Your task to perform on an android device: Go to calendar. Show me events next week Image 0: 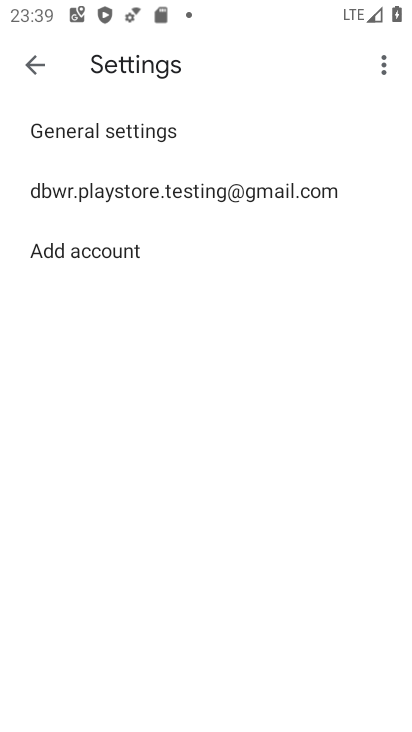
Step 0: press home button
Your task to perform on an android device: Go to calendar. Show me events next week Image 1: 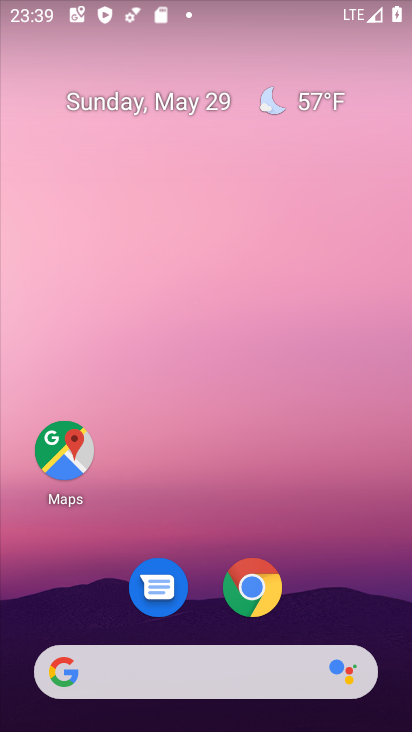
Step 1: drag from (377, 618) to (293, 186)
Your task to perform on an android device: Go to calendar. Show me events next week Image 2: 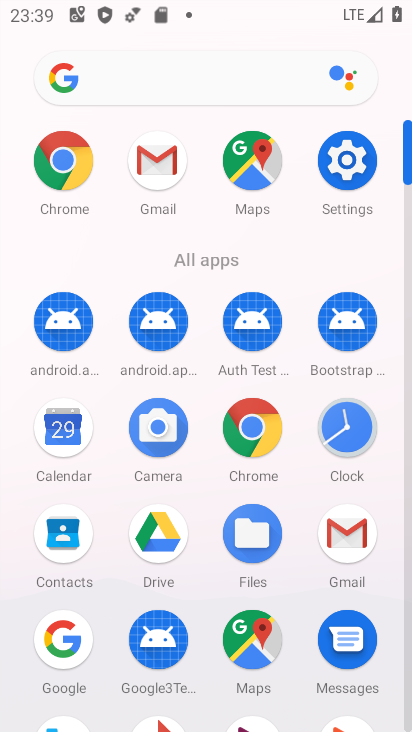
Step 2: click (68, 412)
Your task to perform on an android device: Go to calendar. Show me events next week Image 3: 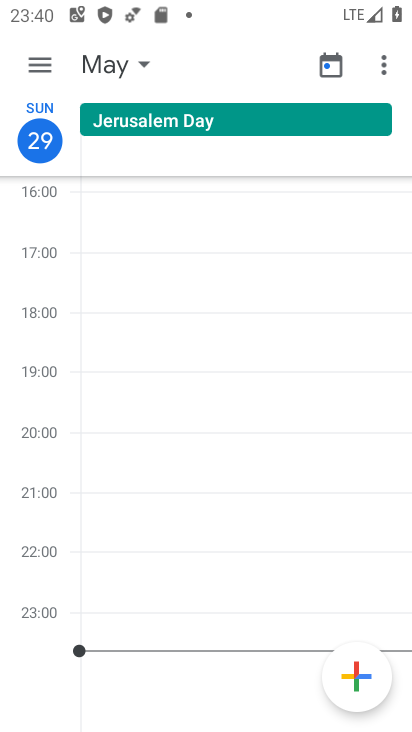
Step 3: click (38, 63)
Your task to perform on an android device: Go to calendar. Show me events next week Image 4: 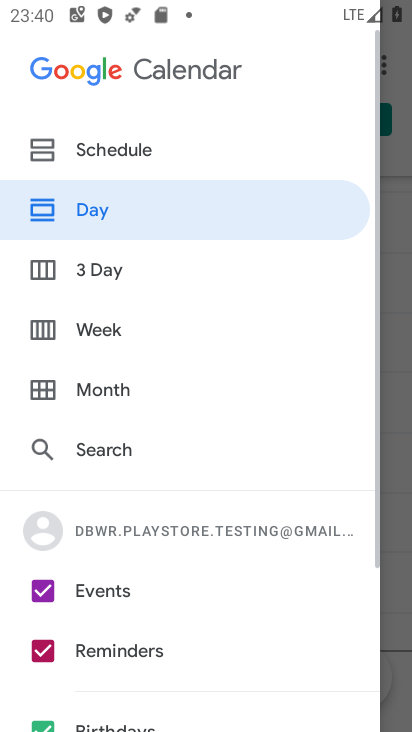
Step 4: drag from (112, 533) to (107, 232)
Your task to perform on an android device: Go to calendar. Show me events next week Image 5: 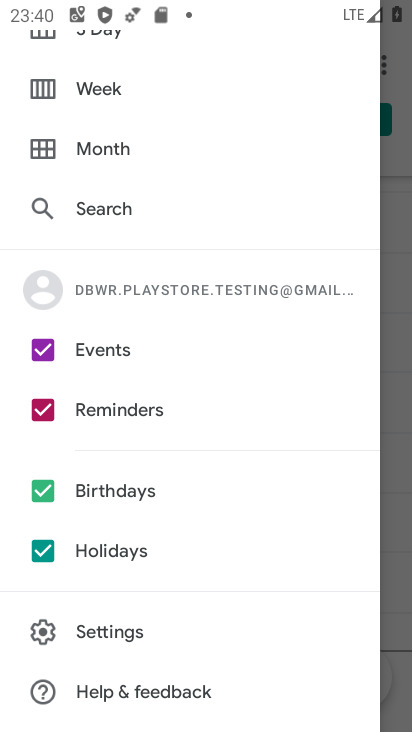
Step 5: click (51, 553)
Your task to perform on an android device: Go to calendar. Show me events next week Image 6: 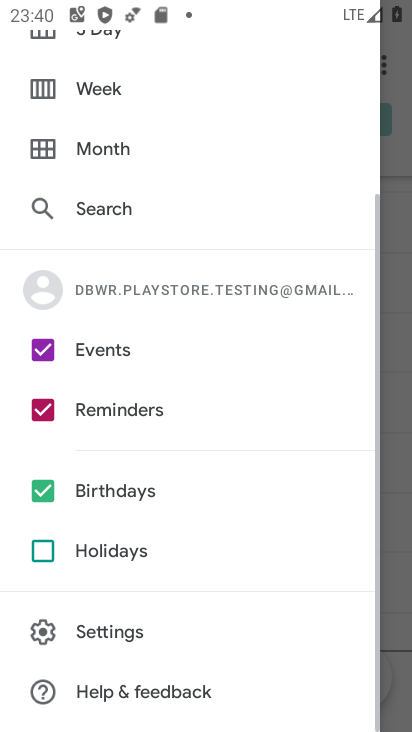
Step 6: click (45, 498)
Your task to perform on an android device: Go to calendar. Show me events next week Image 7: 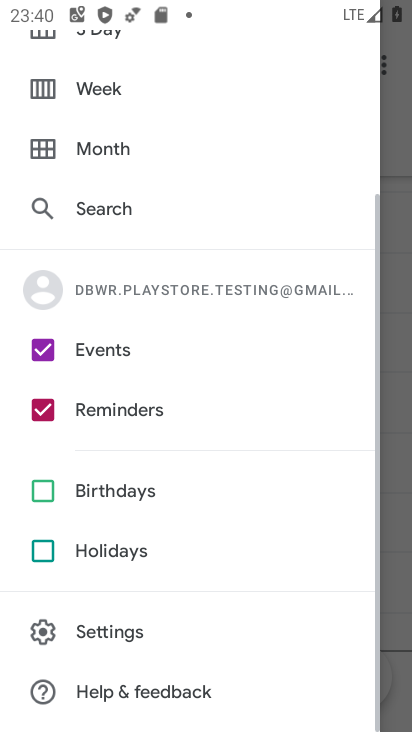
Step 7: click (40, 410)
Your task to perform on an android device: Go to calendar. Show me events next week Image 8: 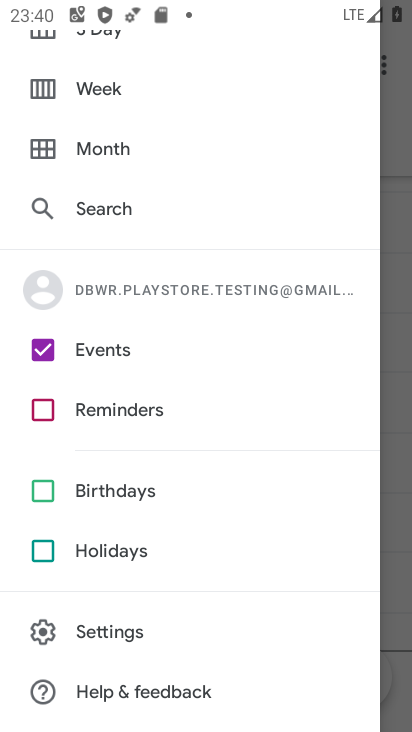
Step 8: drag from (189, 130) to (206, 454)
Your task to perform on an android device: Go to calendar. Show me events next week Image 9: 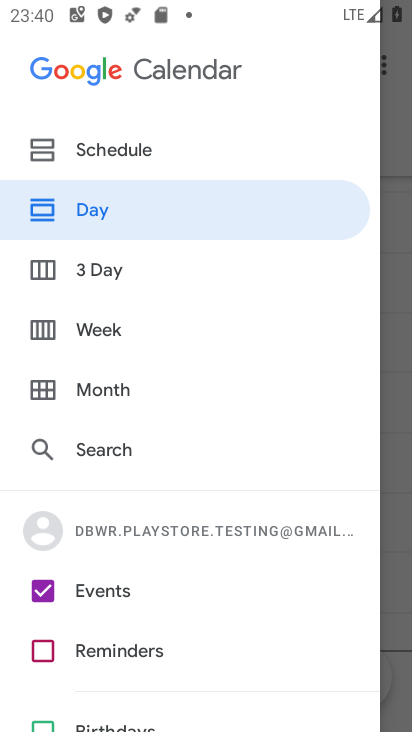
Step 9: click (138, 335)
Your task to perform on an android device: Go to calendar. Show me events next week Image 10: 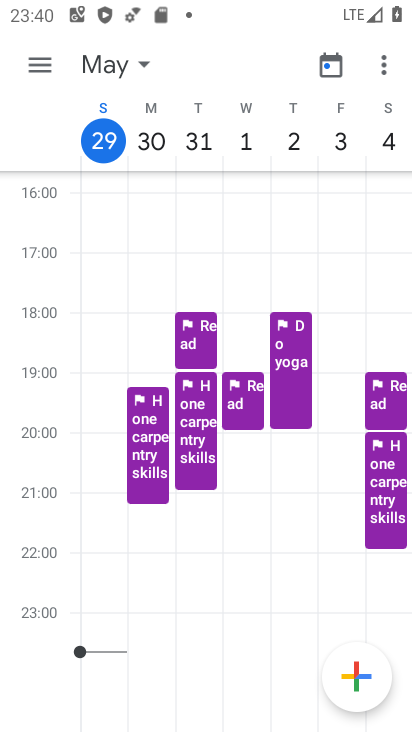
Step 10: task complete